Your task to perform on an android device: toggle show notifications on the lock screen Image 0: 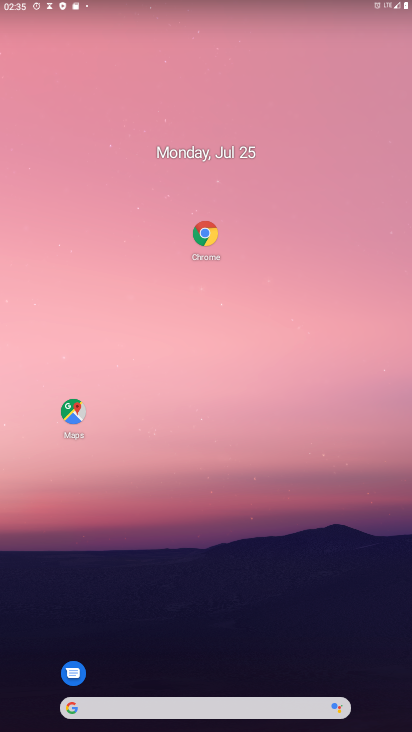
Step 0: drag from (222, 649) to (360, 59)
Your task to perform on an android device: toggle show notifications on the lock screen Image 1: 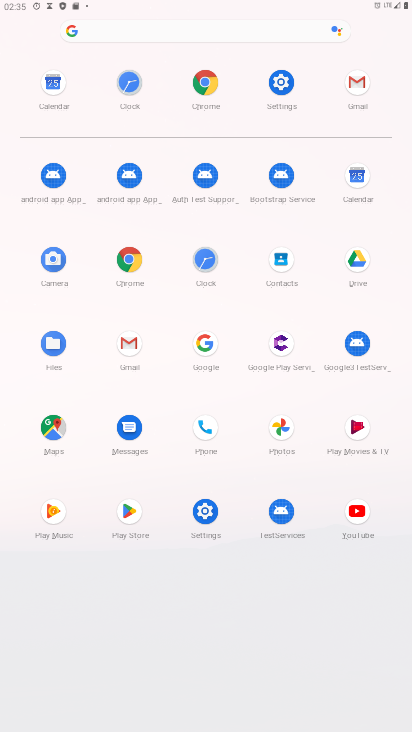
Step 1: click (290, 78)
Your task to perform on an android device: toggle show notifications on the lock screen Image 2: 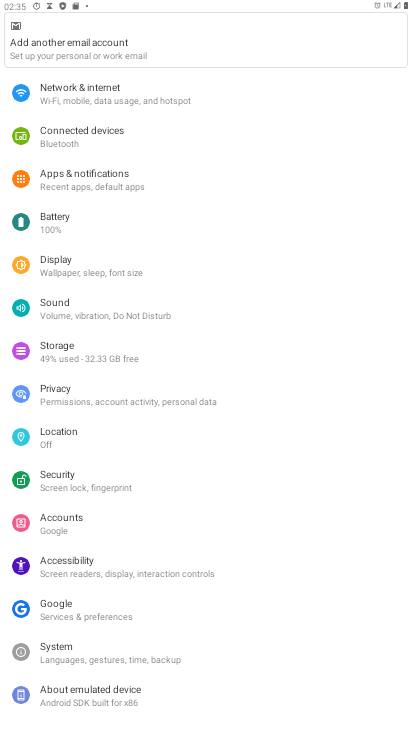
Step 2: click (119, 178)
Your task to perform on an android device: toggle show notifications on the lock screen Image 3: 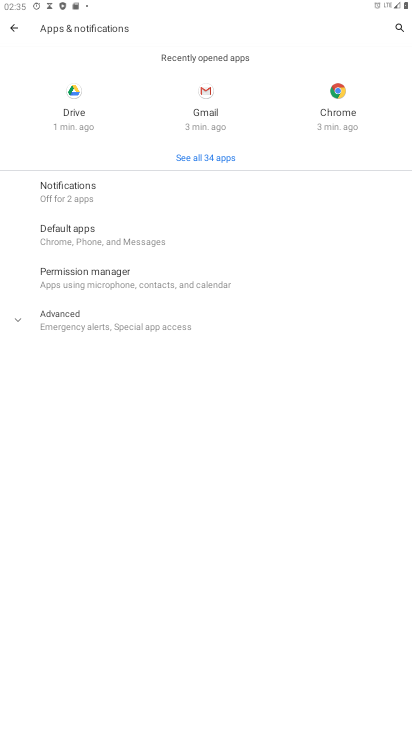
Step 3: click (95, 197)
Your task to perform on an android device: toggle show notifications on the lock screen Image 4: 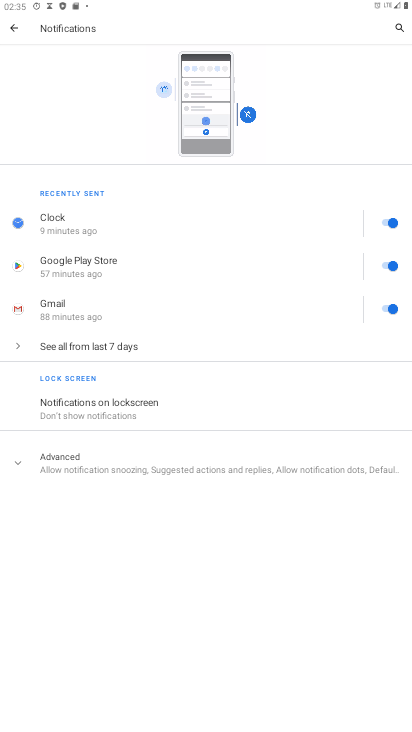
Step 4: click (106, 417)
Your task to perform on an android device: toggle show notifications on the lock screen Image 5: 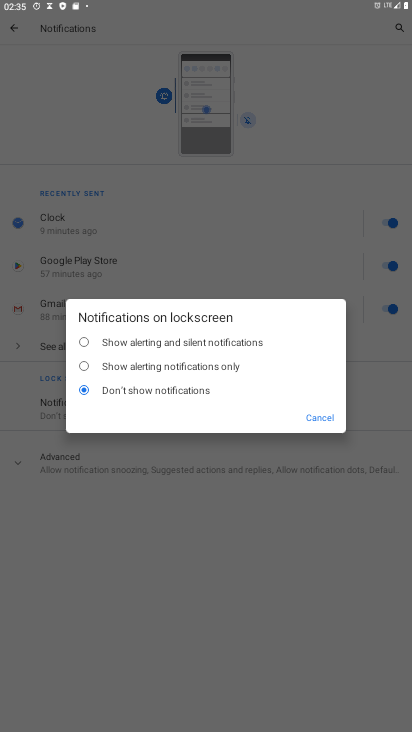
Step 5: click (82, 336)
Your task to perform on an android device: toggle show notifications on the lock screen Image 6: 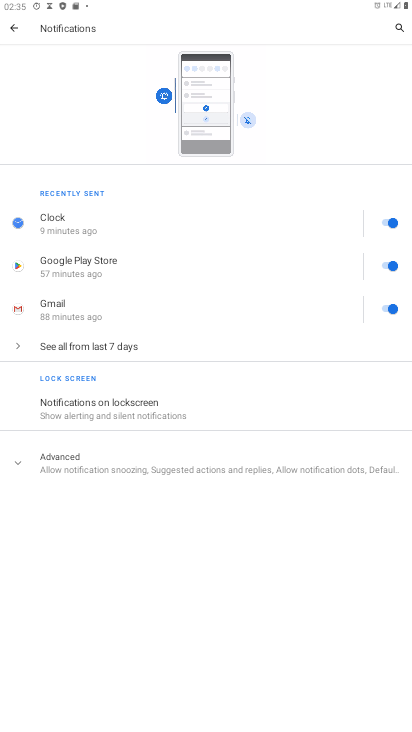
Step 6: task complete